Your task to perform on an android device: What's the weather today? Image 0: 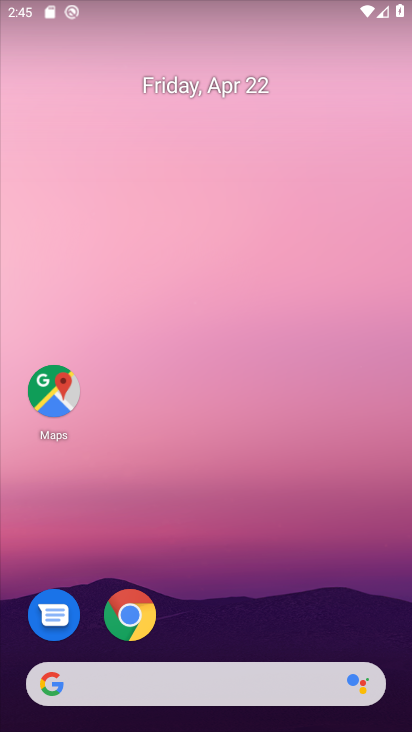
Step 0: click (123, 610)
Your task to perform on an android device: What's the weather today? Image 1: 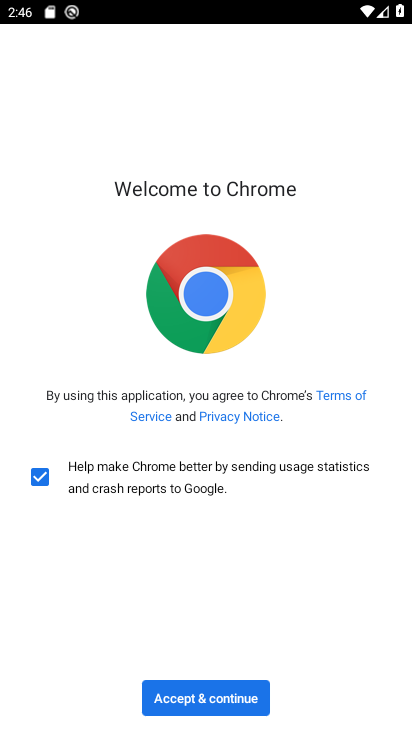
Step 1: click (198, 690)
Your task to perform on an android device: What's the weather today? Image 2: 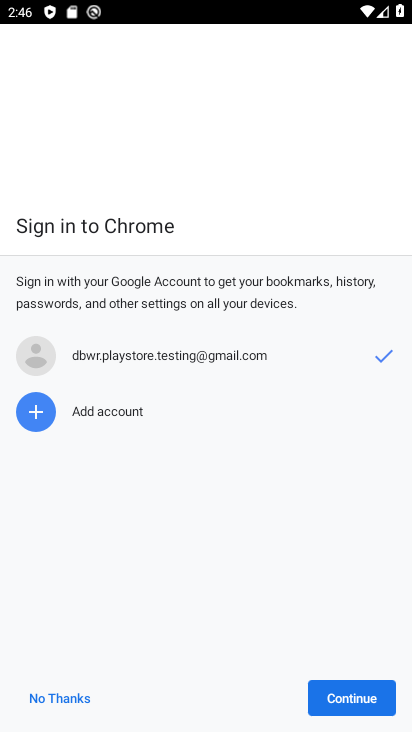
Step 2: click (341, 688)
Your task to perform on an android device: What's the weather today? Image 3: 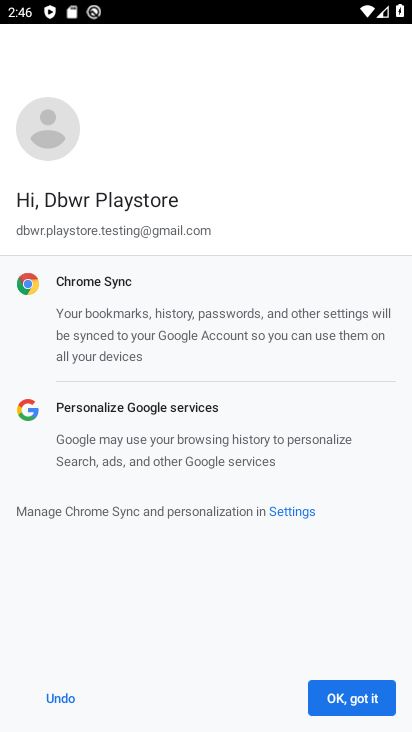
Step 3: click (352, 708)
Your task to perform on an android device: What's the weather today? Image 4: 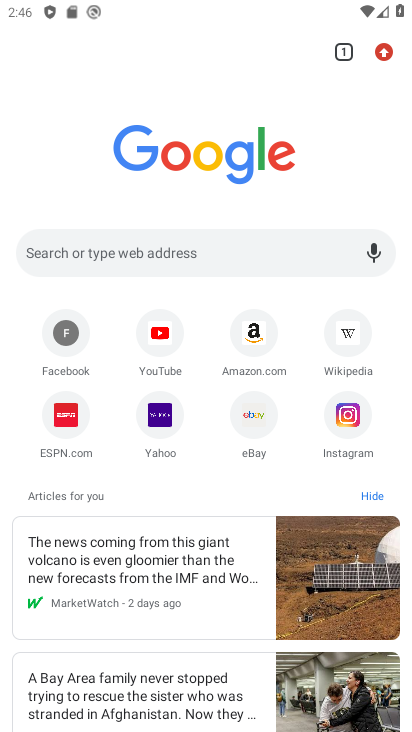
Step 4: click (231, 254)
Your task to perform on an android device: What's the weather today? Image 5: 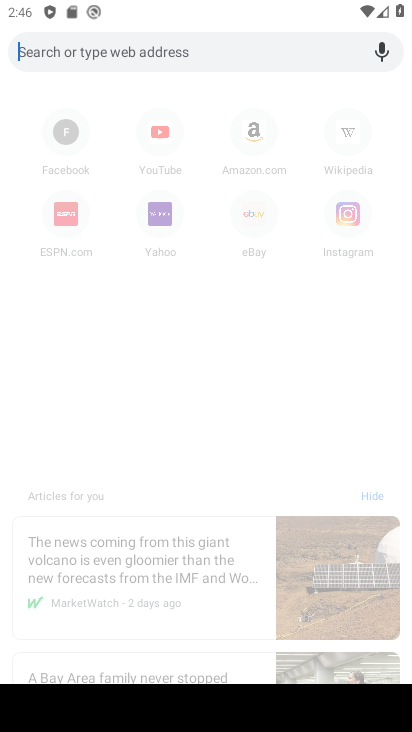
Step 5: type "What's the weather today?"
Your task to perform on an android device: What's the weather today? Image 6: 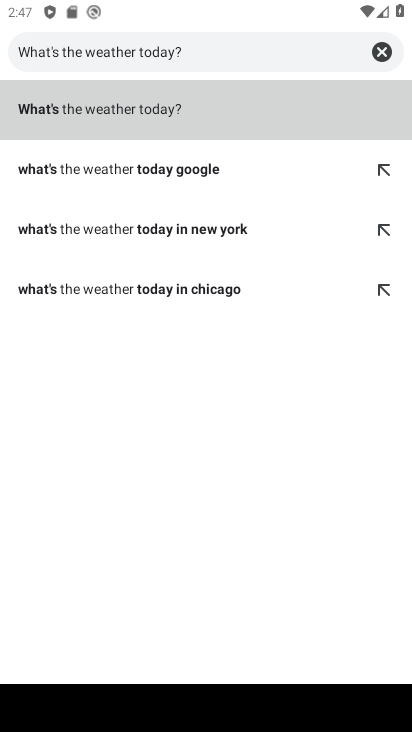
Step 6: click (80, 101)
Your task to perform on an android device: What's the weather today? Image 7: 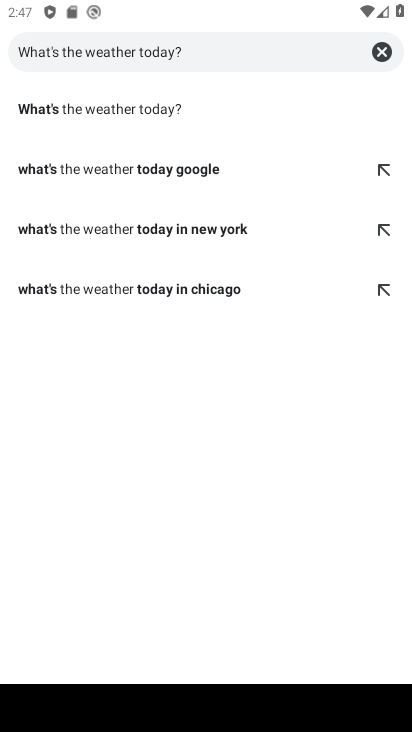
Step 7: click (81, 106)
Your task to perform on an android device: What's the weather today? Image 8: 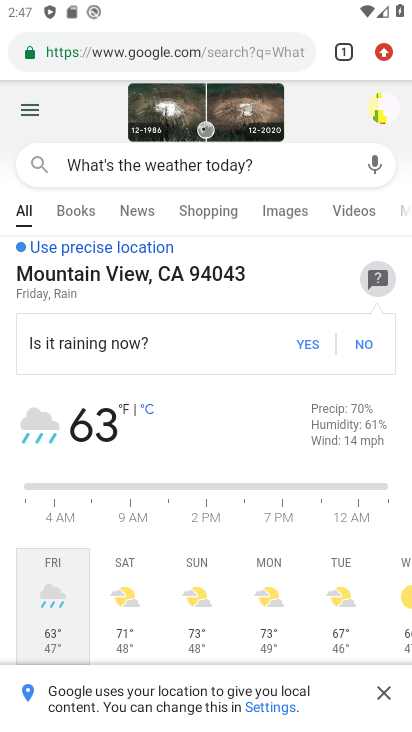
Step 8: task complete